Your task to perform on an android device: Open Youtube and go to "Your channel" Image 0: 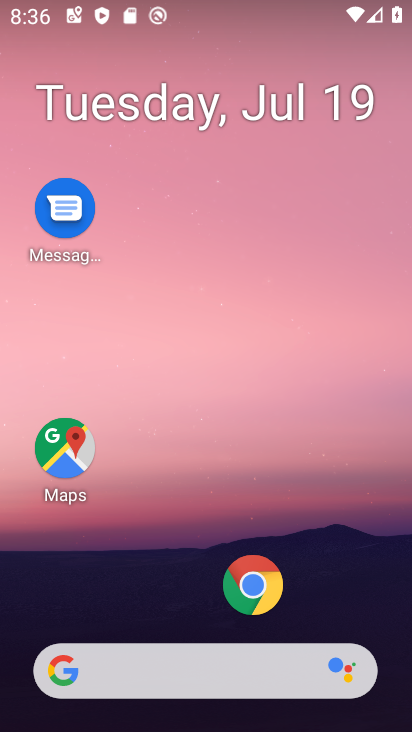
Step 0: task complete